Your task to perform on an android device: set default search engine in the chrome app Image 0: 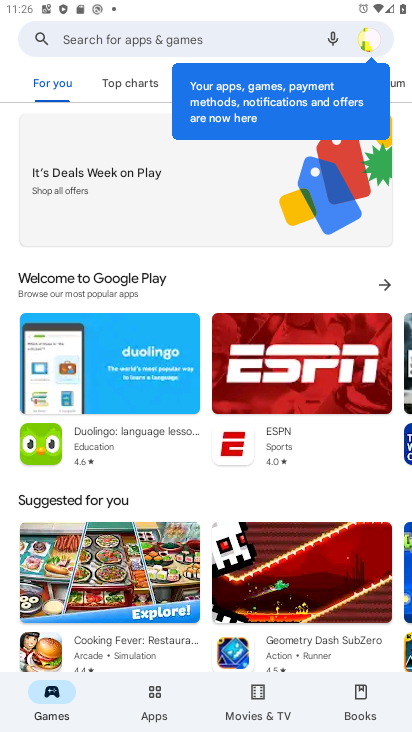
Step 0: press home button
Your task to perform on an android device: set default search engine in the chrome app Image 1: 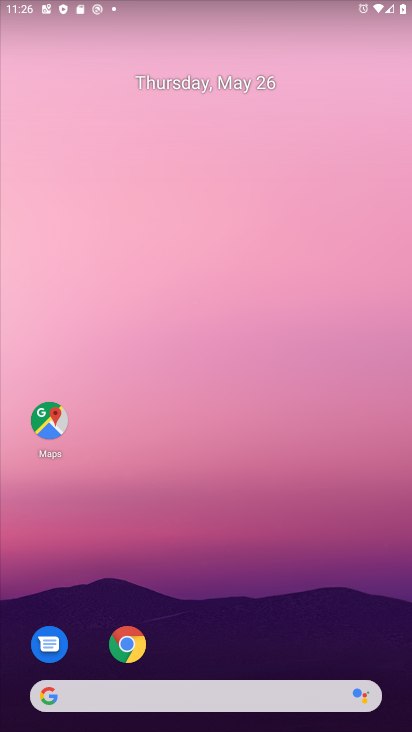
Step 1: click (126, 652)
Your task to perform on an android device: set default search engine in the chrome app Image 2: 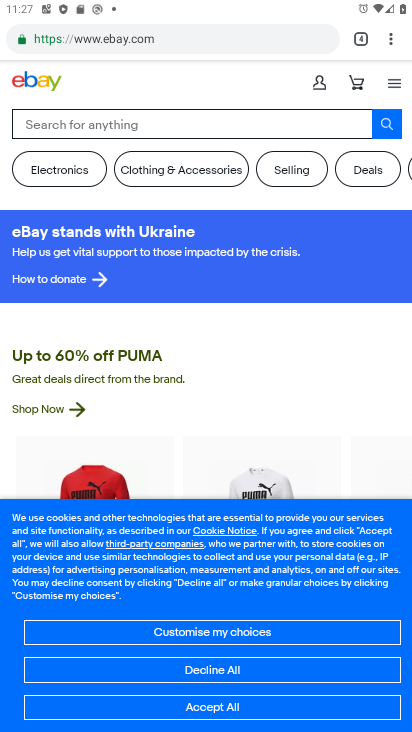
Step 2: click (131, 639)
Your task to perform on an android device: set default search engine in the chrome app Image 3: 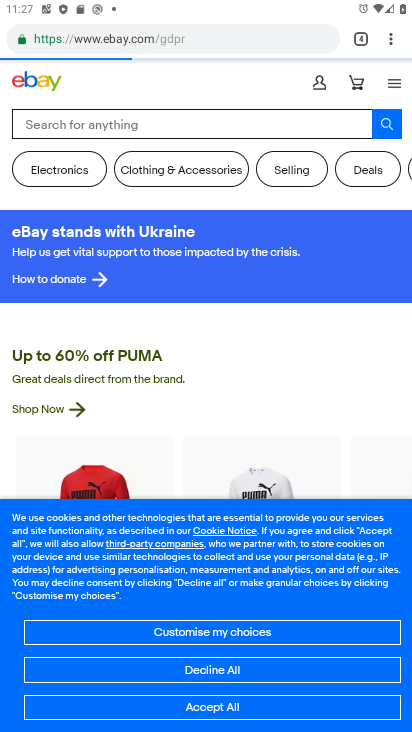
Step 3: click (391, 30)
Your task to perform on an android device: set default search engine in the chrome app Image 4: 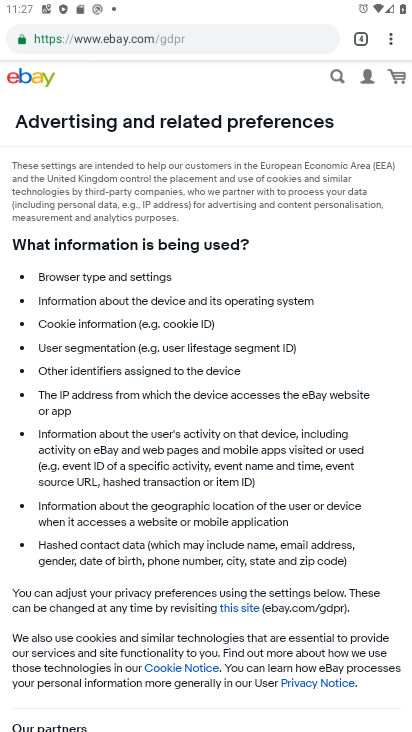
Step 4: drag from (387, 39) to (265, 457)
Your task to perform on an android device: set default search engine in the chrome app Image 5: 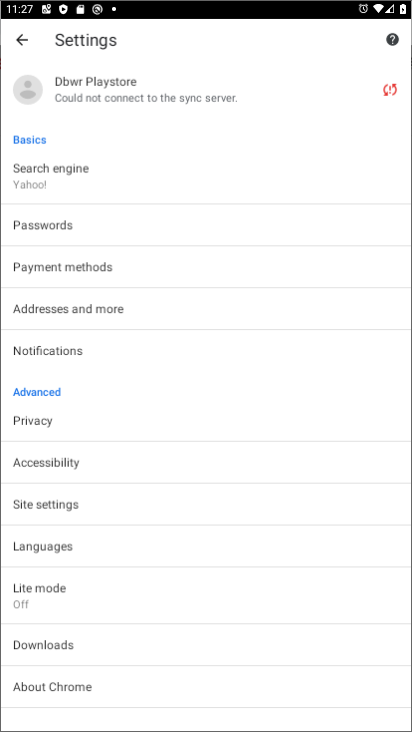
Step 5: click (118, 173)
Your task to perform on an android device: set default search engine in the chrome app Image 6: 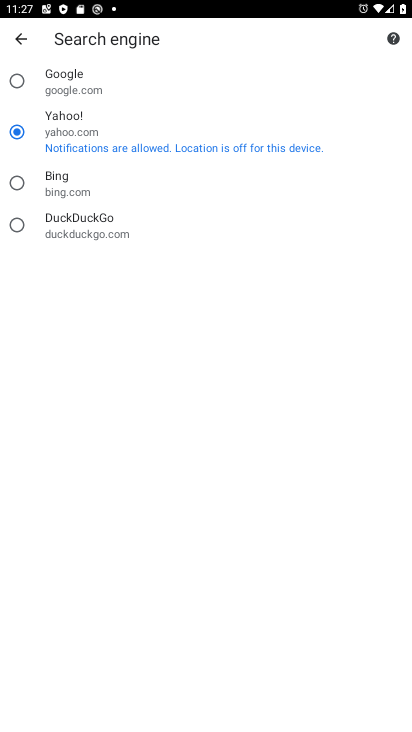
Step 6: click (12, 77)
Your task to perform on an android device: set default search engine in the chrome app Image 7: 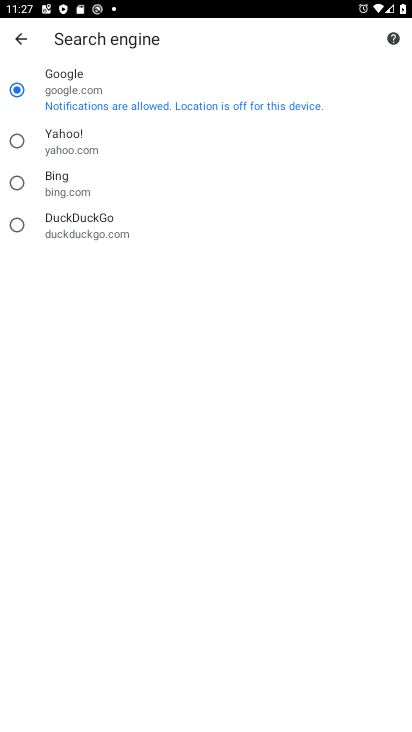
Step 7: task complete